Your task to perform on an android device: Open Chrome and go to settings Image 0: 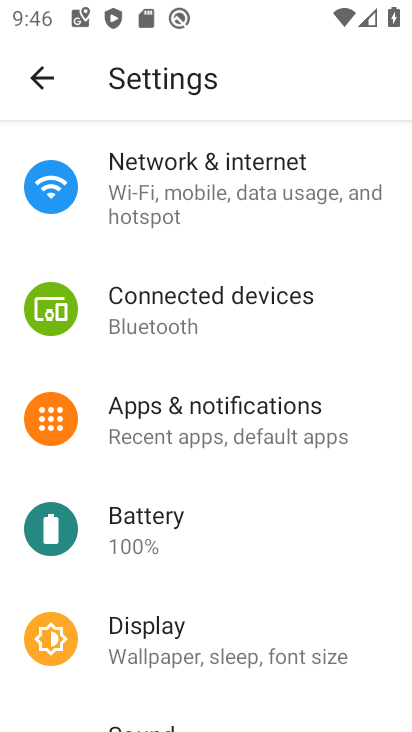
Step 0: press home button
Your task to perform on an android device: Open Chrome and go to settings Image 1: 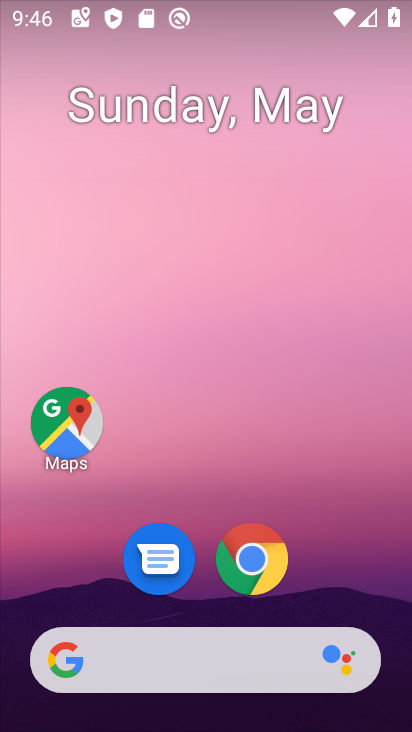
Step 1: click (241, 562)
Your task to perform on an android device: Open Chrome and go to settings Image 2: 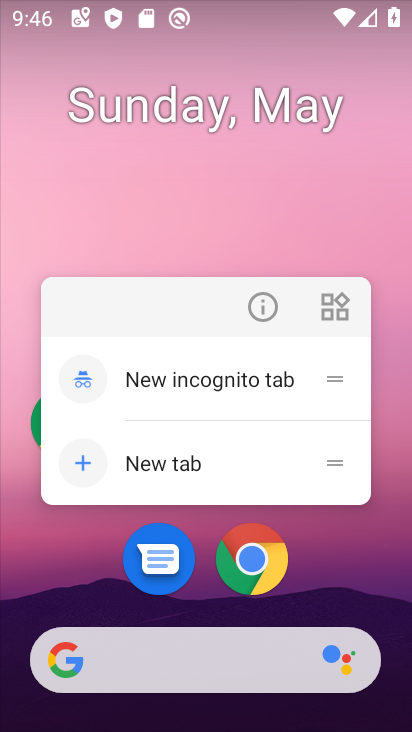
Step 2: click (236, 558)
Your task to perform on an android device: Open Chrome and go to settings Image 3: 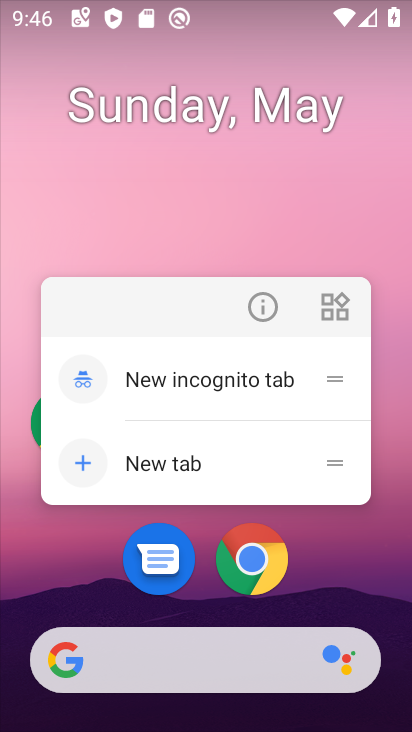
Step 3: click (238, 555)
Your task to perform on an android device: Open Chrome and go to settings Image 4: 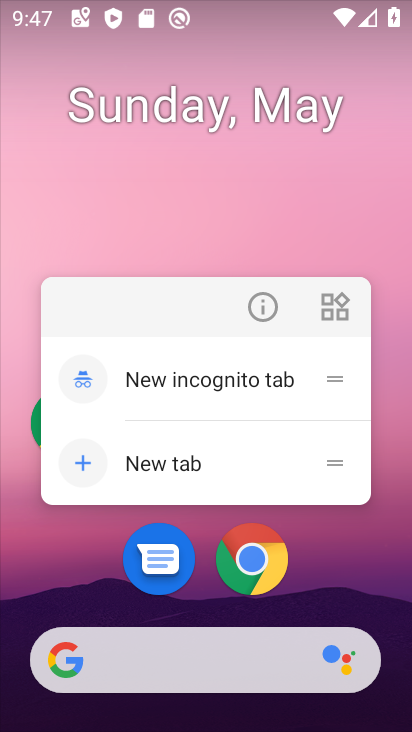
Step 4: click (242, 553)
Your task to perform on an android device: Open Chrome and go to settings Image 5: 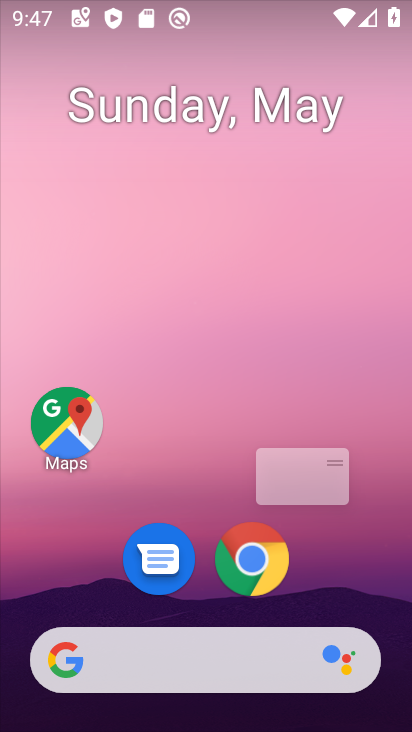
Step 5: click (243, 553)
Your task to perform on an android device: Open Chrome and go to settings Image 6: 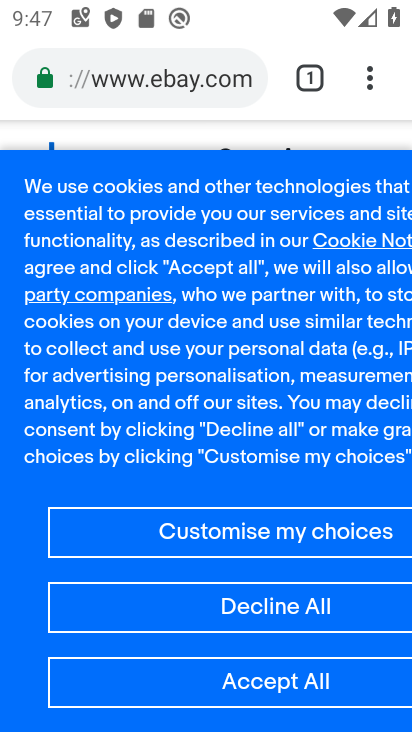
Step 6: click (372, 77)
Your task to perform on an android device: Open Chrome and go to settings Image 7: 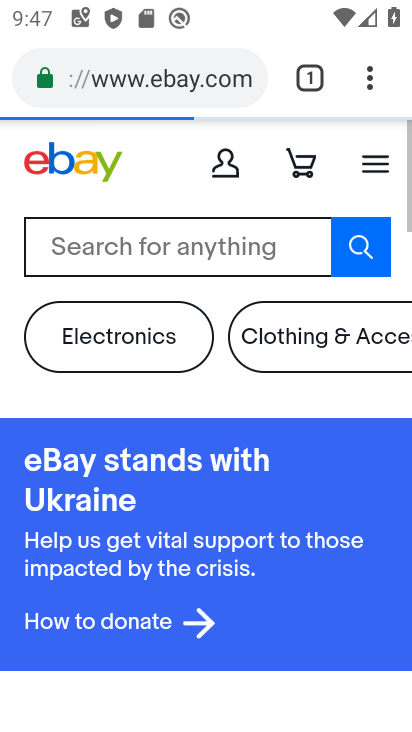
Step 7: drag from (372, 77) to (218, 615)
Your task to perform on an android device: Open Chrome and go to settings Image 8: 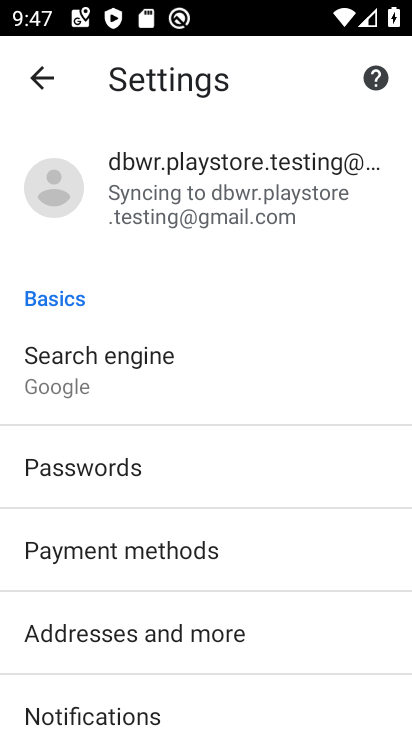
Step 8: drag from (230, 659) to (241, 126)
Your task to perform on an android device: Open Chrome and go to settings Image 9: 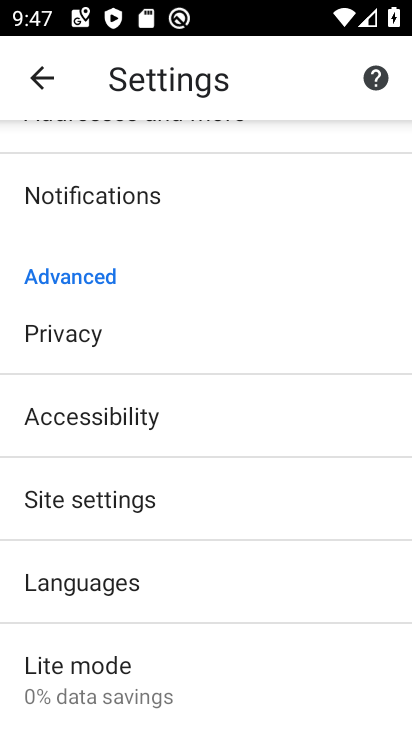
Step 9: click (181, 686)
Your task to perform on an android device: Open Chrome and go to settings Image 10: 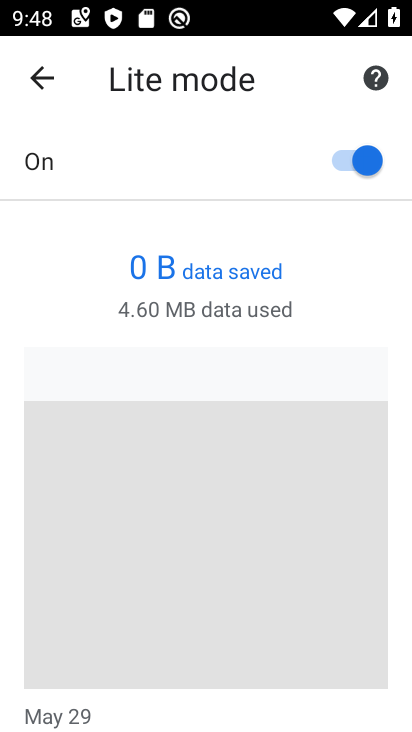
Step 10: press home button
Your task to perform on an android device: Open Chrome and go to settings Image 11: 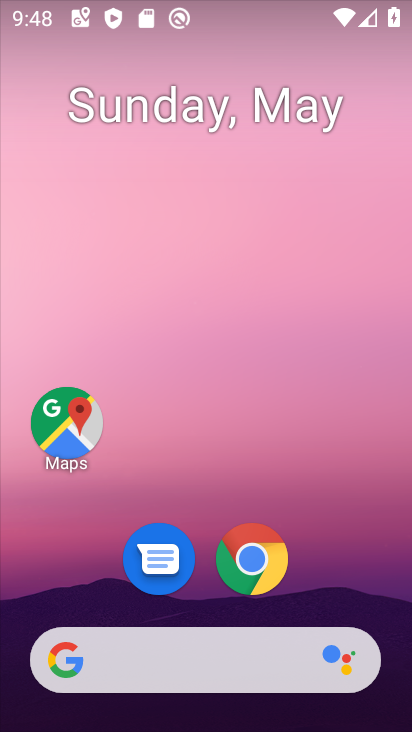
Step 11: click (261, 549)
Your task to perform on an android device: Open Chrome and go to settings Image 12: 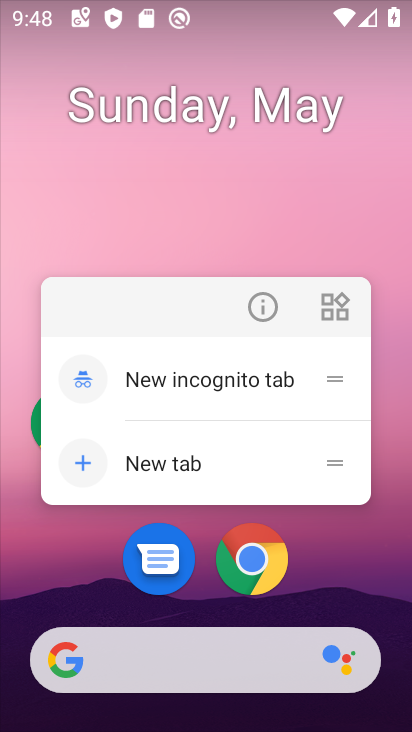
Step 12: click (272, 547)
Your task to perform on an android device: Open Chrome and go to settings Image 13: 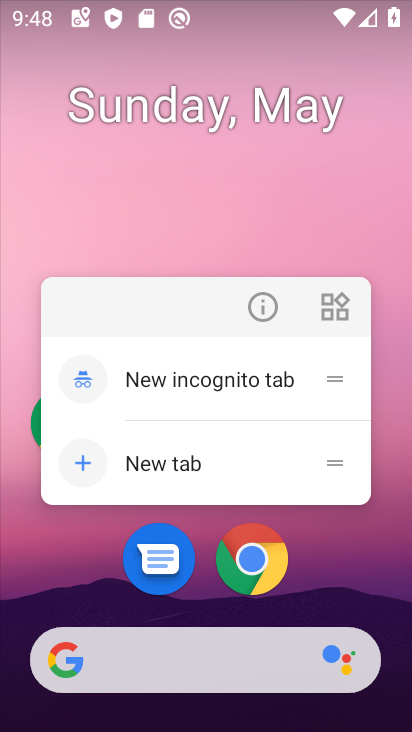
Step 13: click (272, 547)
Your task to perform on an android device: Open Chrome and go to settings Image 14: 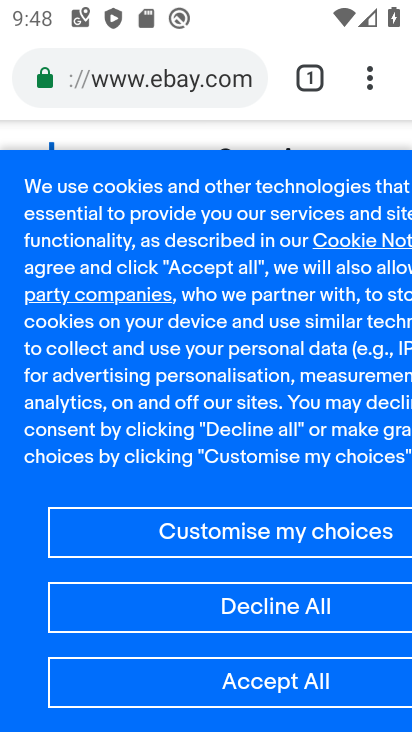
Step 14: click (272, 544)
Your task to perform on an android device: Open Chrome and go to settings Image 15: 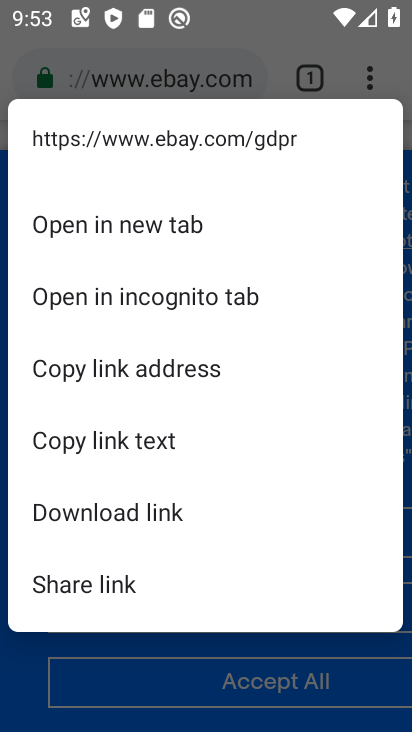
Step 15: press home button
Your task to perform on an android device: Open Chrome and go to settings Image 16: 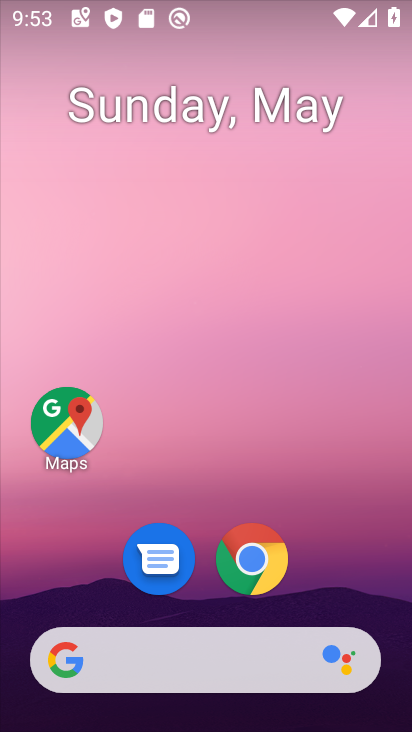
Step 16: click (253, 565)
Your task to perform on an android device: Open Chrome and go to settings Image 17: 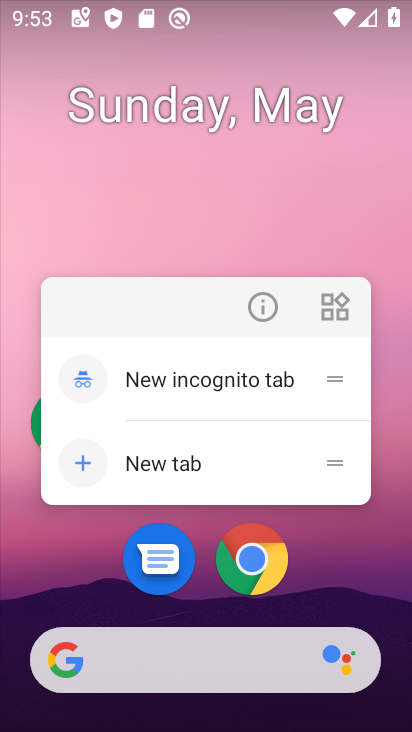
Step 17: click (258, 565)
Your task to perform on an android device: Open Chrome and go to settings Image 18: 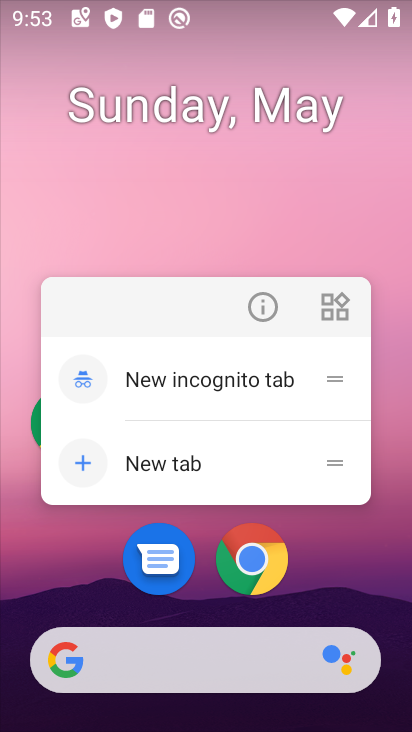
Step 18: click (309, 559)
Your task to perform on an android device: Open Chrome and go to settings Image 19: 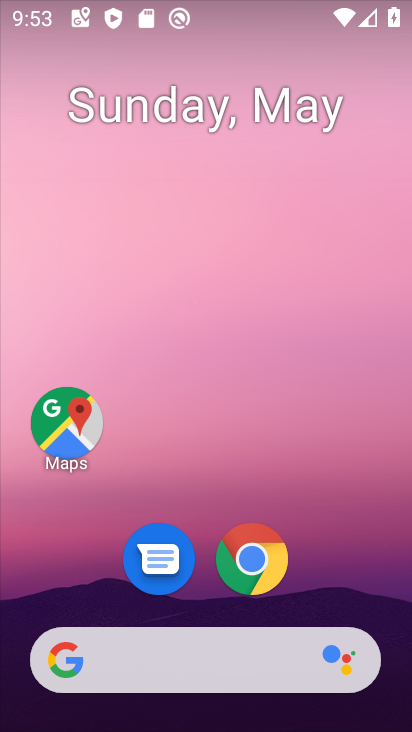
Step 19: drag from (304, 608) to (199, 124)
Your task to perform on an android device: Open Chrome and go to settings Image 20: 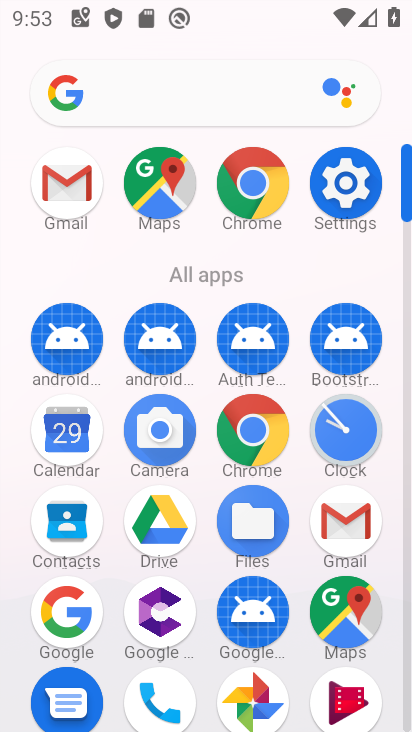
Step 20: click (256, 190)
Your task to perform on an android device: Open Chrome and go to settings Image 21: 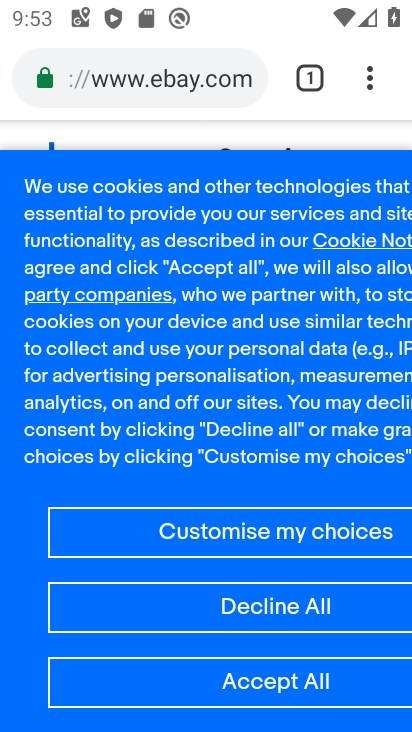
Step 21: task complete